Your task to perform on an android device: snooze an email in the gmail app Image 0: 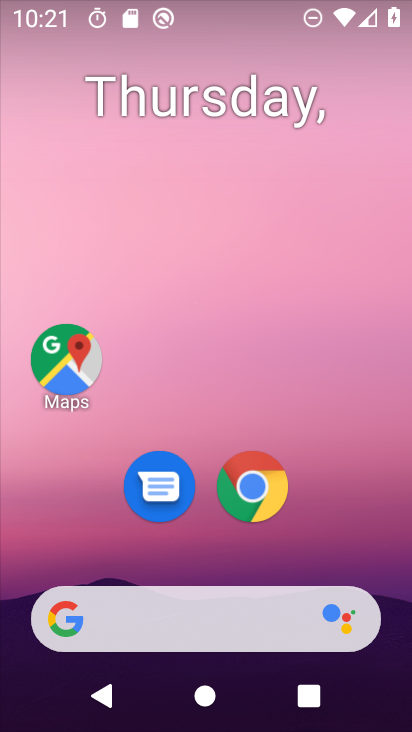
Step 0: drag from (164, 523) to (299, 20)
Your task to perform on an android device: snooze an email in the gmail app Image 1: 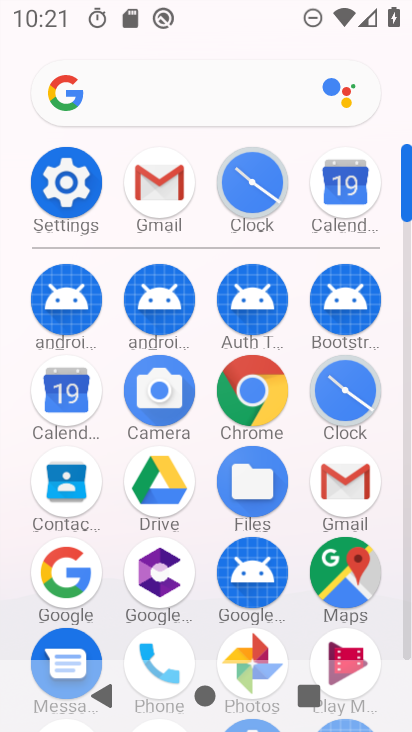
Step 1: click (159, 167)
Your task to perform on an android device: snooze an email in the gmail app Image 2: 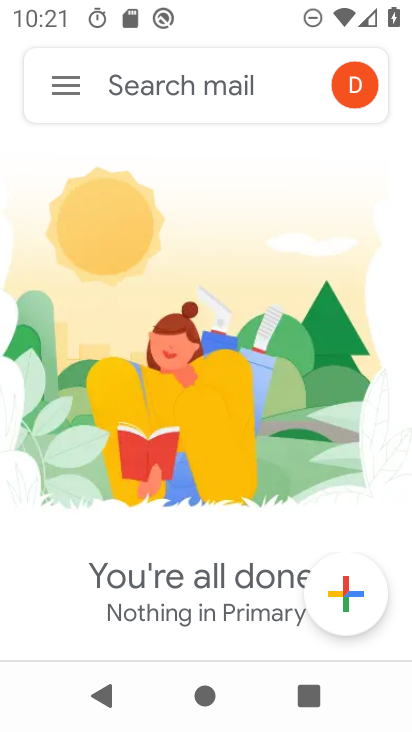
Step 2: click (75, 86)
Your task to perform on an android device: snooze an email in the gmail app Image 3: 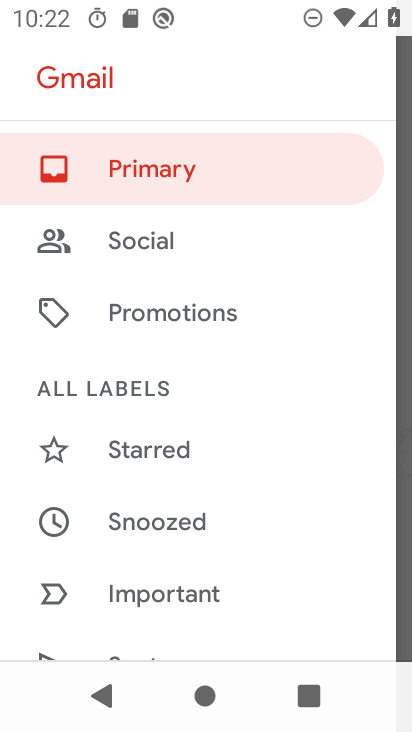
Step 3: drag from (190, 584) to (278, 119)
Your task to perform on an android device: snooze an email in the gmail app Image 4: 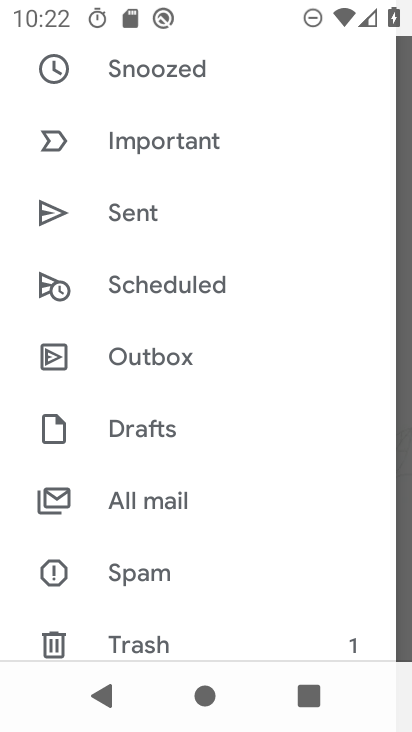
Step 4: click (166, 508)
Your task to perform on an android device: snooze an email in the gmail app Image 5: 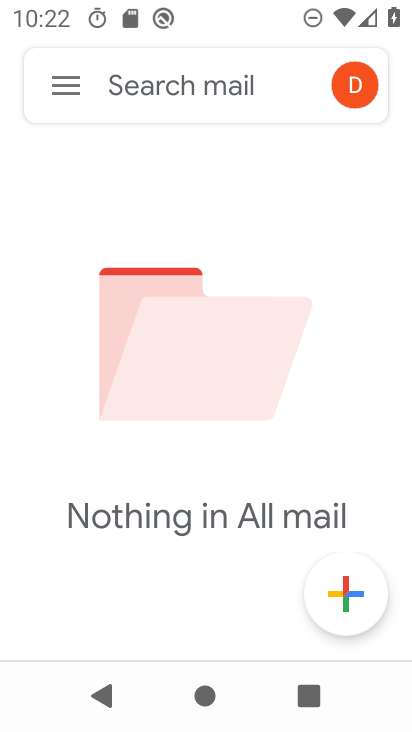
Step 5: task complete